Your task to perform on an android device: Go to Google maps Image 0: 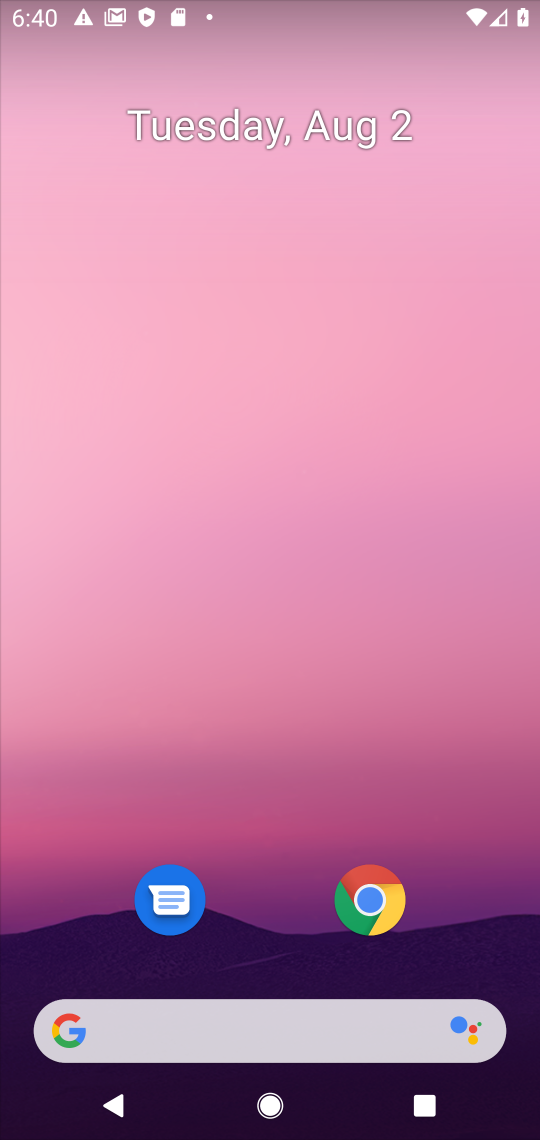
Step 0: drag from (289, 877) to (152, 14)
Your task to perform on an android device: Go to Google maps Image 1: 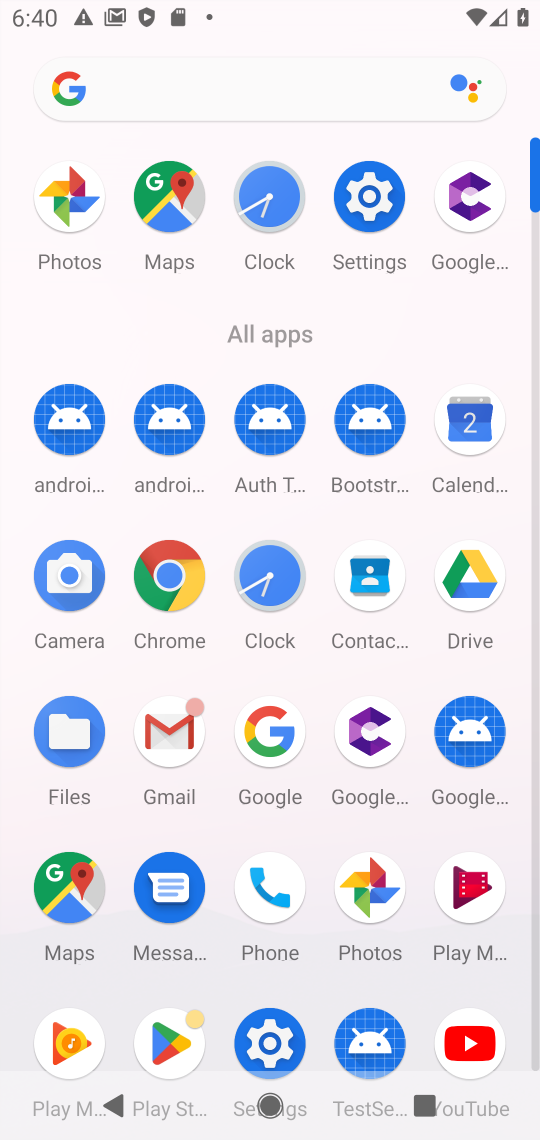
Step 1: click (160, 204)
Your task to perform on an android device: Go to Google maps Image 2: 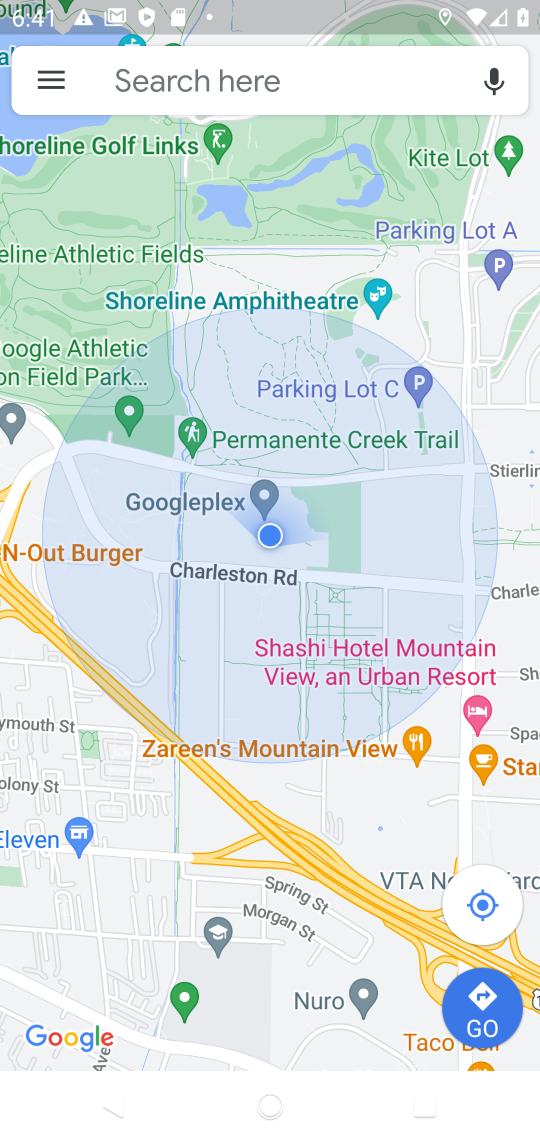
Step 2: task complete